Your task to perform on an android device: delete location history Image 0: 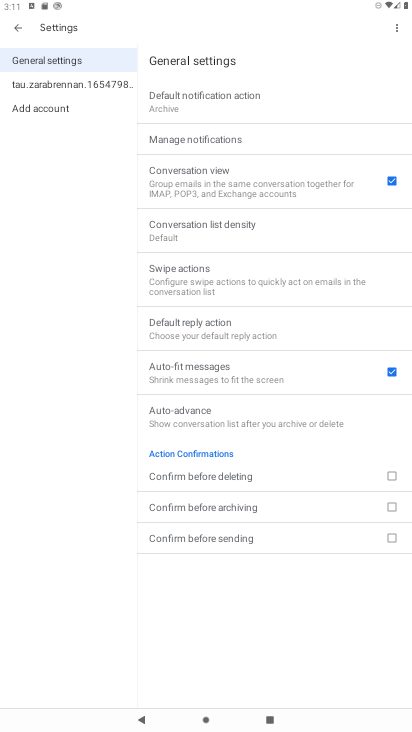
Step 0: press home button
Your task to perform on an android device: delete location history Image 1: 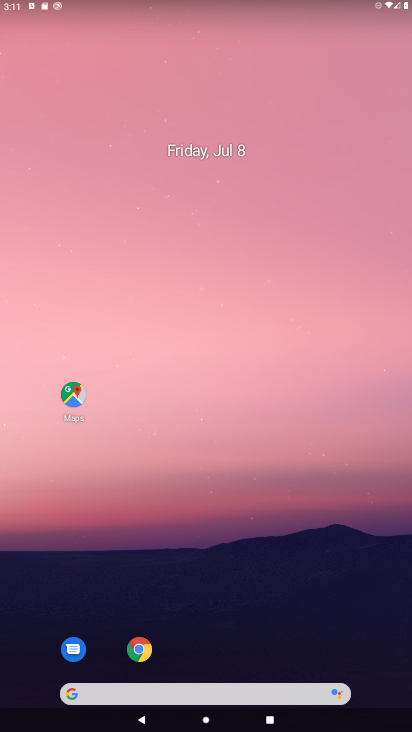
Step 1: click (74, 396)
Your task to perform on an android device: delete location history Image 2: 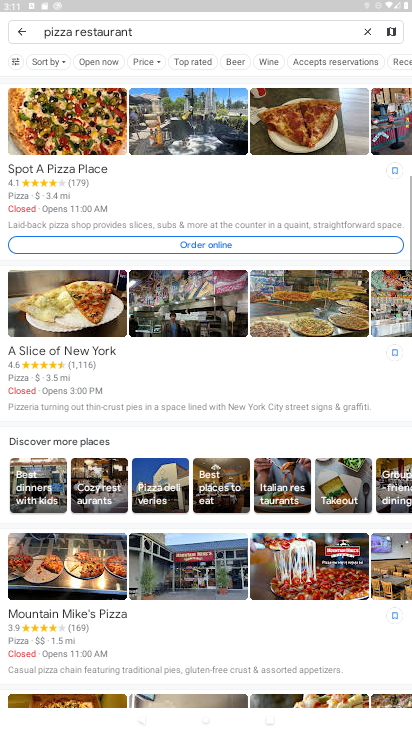
Step 2: click (365, 29)
Your task to perform on an android device: delete location history Image 3: 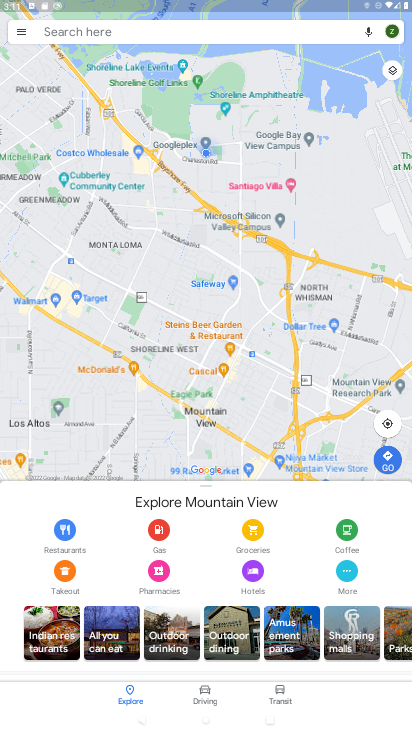
Step 3: click (17, 30)
Your task to perform on an android device: delete location history Image 4: 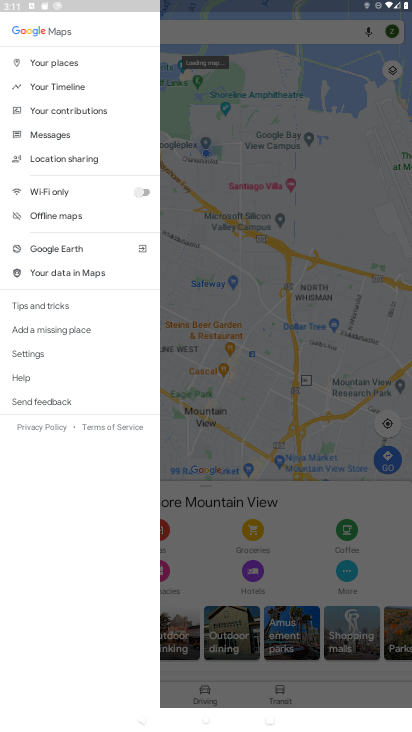
Step 4: click (33, 349)
Your task to perform on an android device: delete location history Image 5: 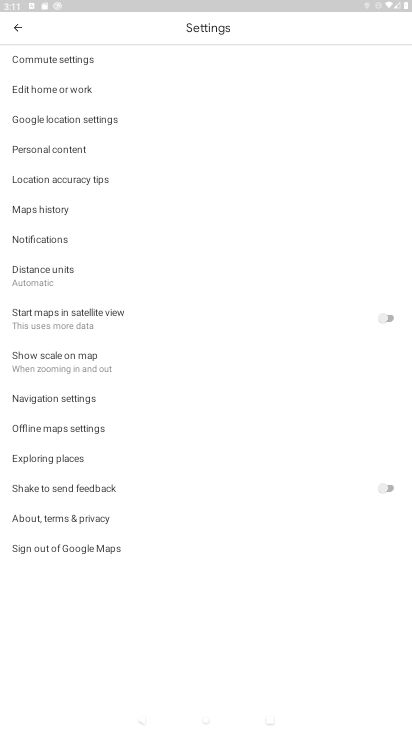
Step 5: click (47, 152)
Your task to perform on an android device: delete location history Image 6: 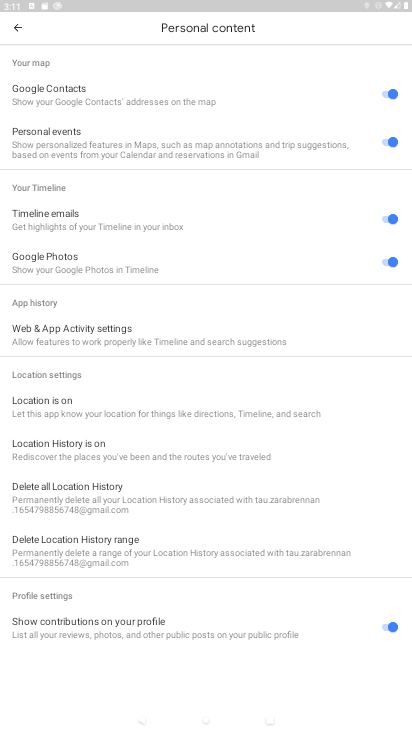
Step 6: click (68, 499)
Your task to perform on an android device: delete location history Image 7: 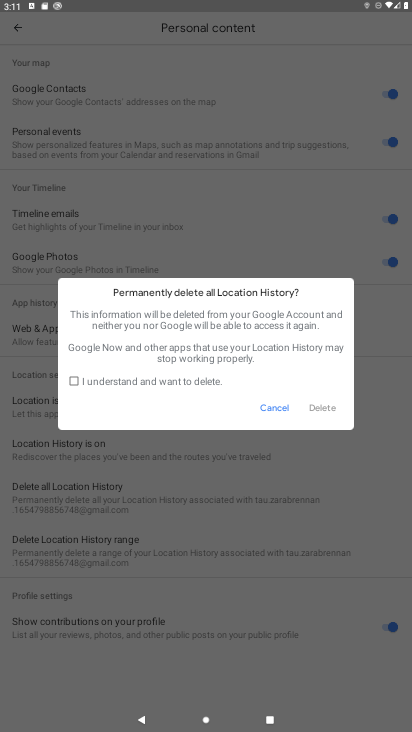
Step 7: click (71, 380)
Your task to perform on an android device: delete location history Image 8: 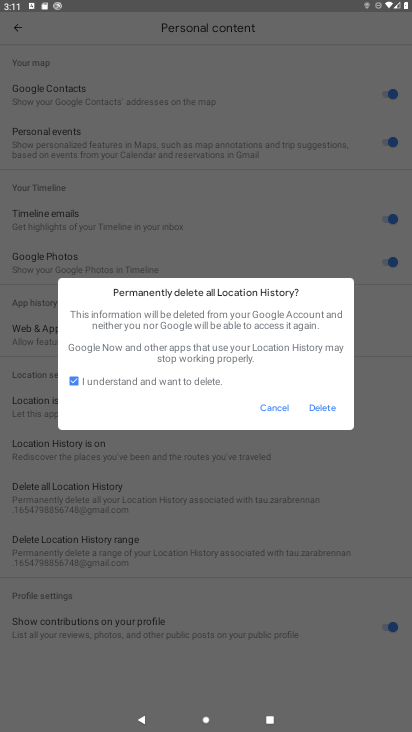
Step 8: click (318, 406)
Your task to perform on an android device: delete location history Image 9: 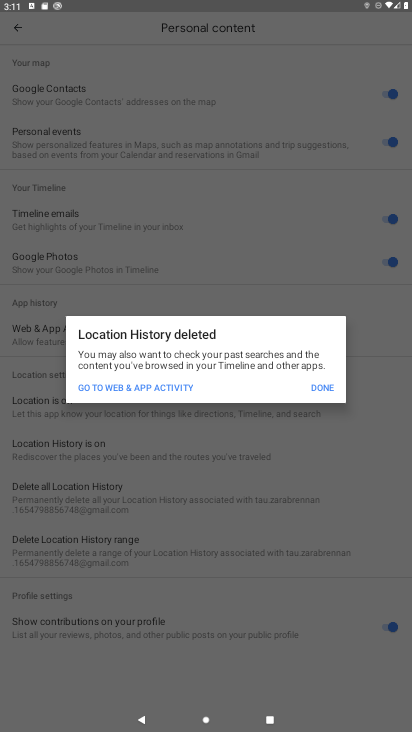
Step 9: click (316, 384)
Your task to perform on an android device: delete location history Image 10: 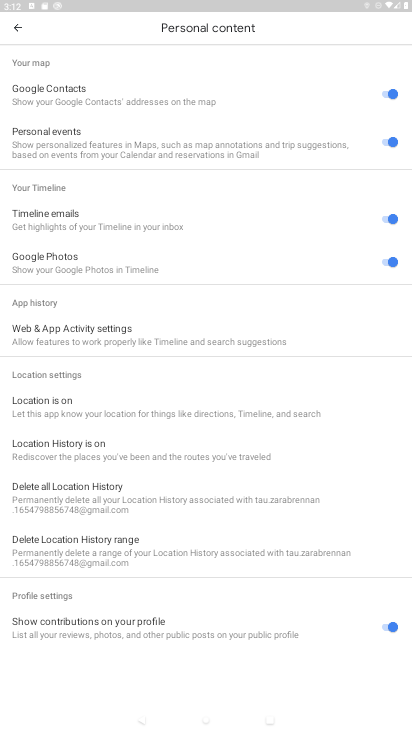
Step 10: task complete